Your task to perform on an android device: turn off airplane mode Image 0: 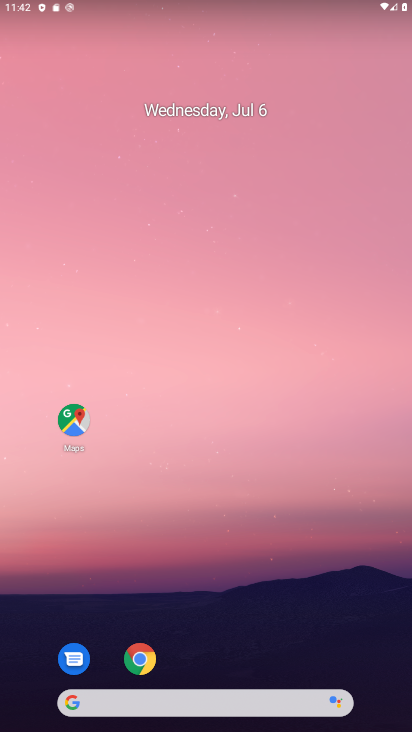
Step 0: drag from (196, 67) to (251, 171)
Your task to perform on an android device: turn off airplane mode Image 1: 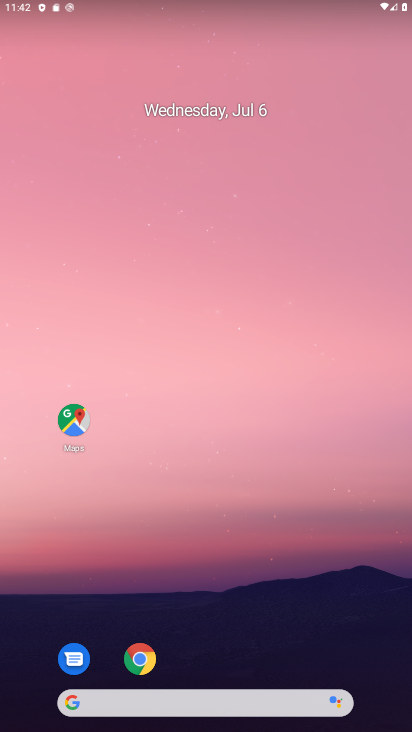
Step 1: drag from (281, 495) to (206, 14)
Your task to perform on an android device: turn off airplane mode Image 2: 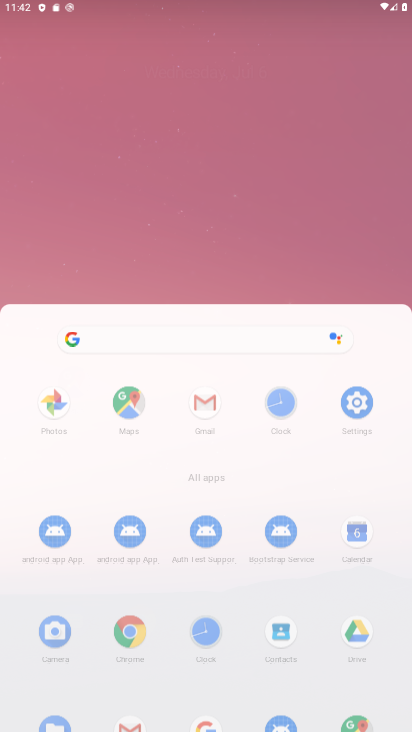
Step 2: drag from (225, 473) to (193, 55)
Your task to perform on an android device: turn off airplane mode Image 3: 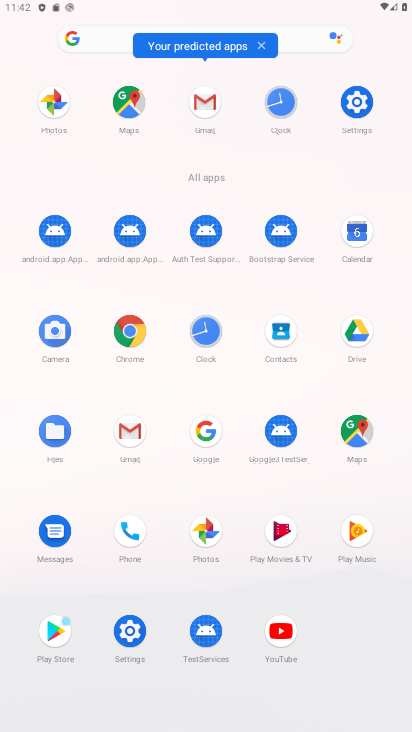
Step 3: click (366, 103)
Your task to perform on an android device: turn off airplane mode Image 4: 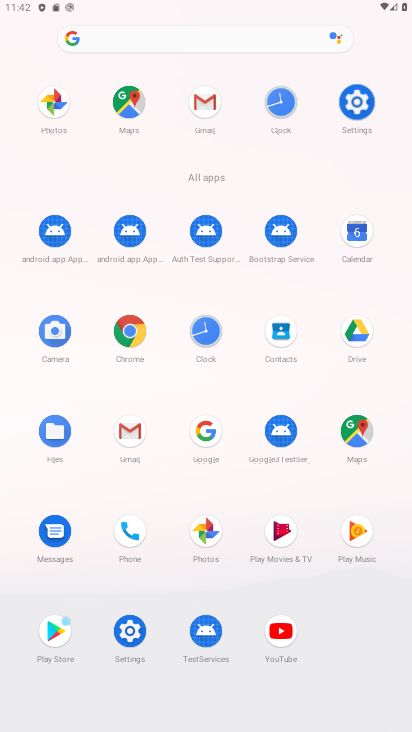
Step 4: click (357, 103)
Your task to perform on an android device: turn off airplane mode Image 5: 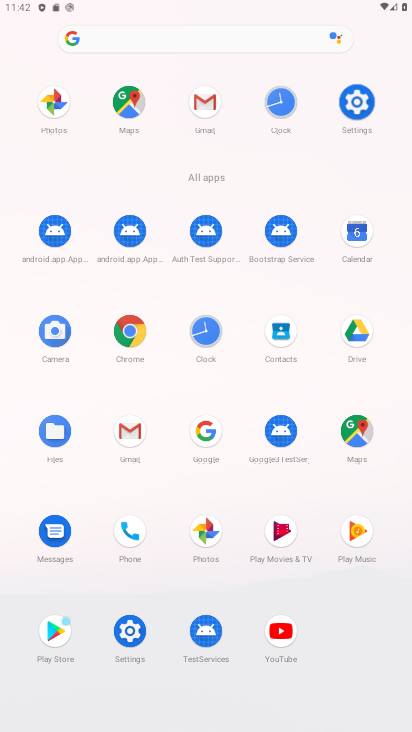
Step 5: click (360, 101)
Your task to perform on an android device: turn off airplane mode Image 6: 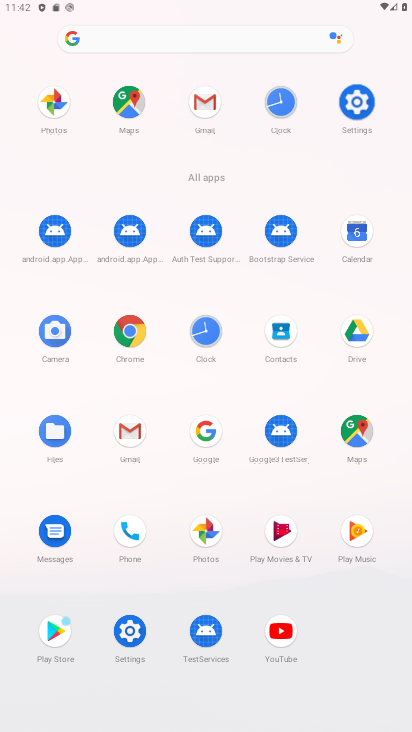
Step 6: click (362, 99)
Your task to perform on an android device: turn off airplane mode Image 7: 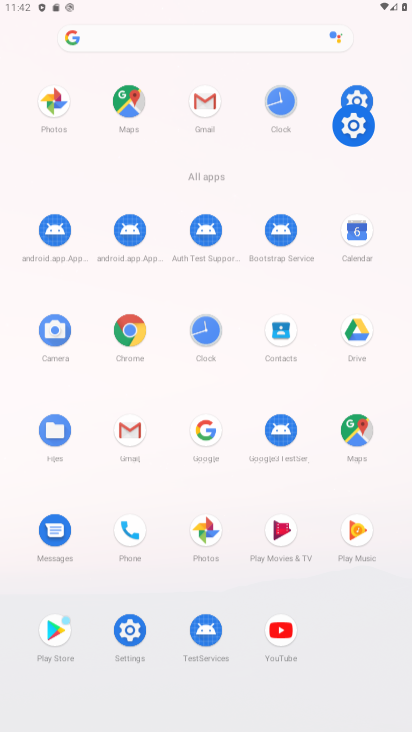
Step 7: click (362, 99)
Your task to perform on an android device: turn off airplane mode Image 8: 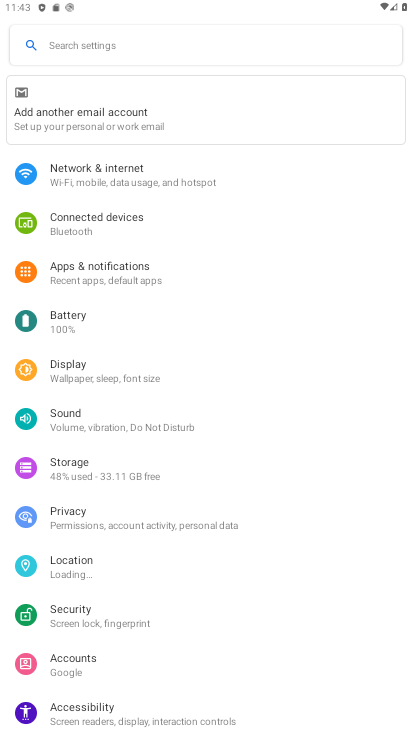
Step 8: click (108, 168)
Your task to perform on an android device: turn off airplane mode Image 9: 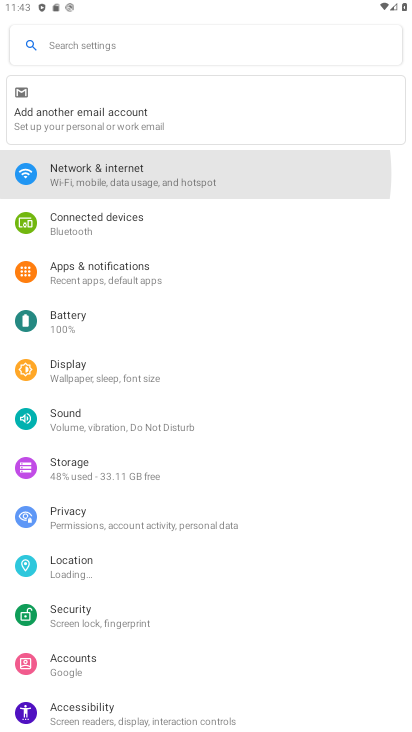
Step 9: click (108, 168)
Your task to perform on an android device: turn off airplane mode Image 10: 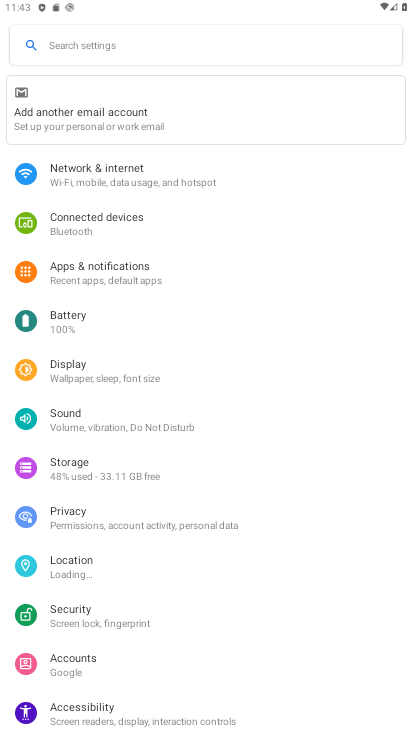
Step 10: click (115, 163)
Your task to perform on an android device: turn off airplane mode Image 11: 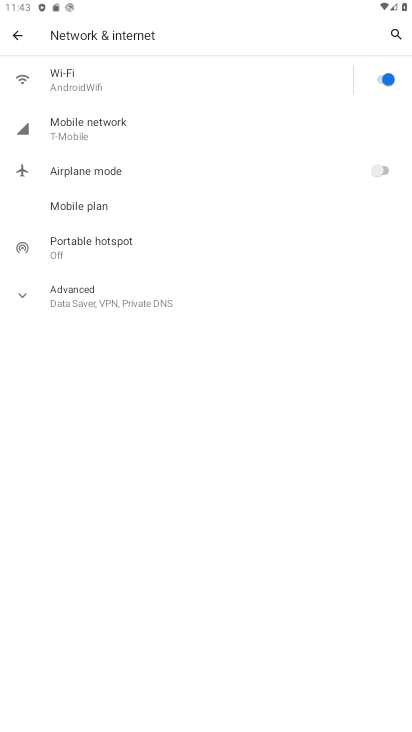
Step 11: task complete